Your task to perform on an android device: create a new album in the google photos Image 0: 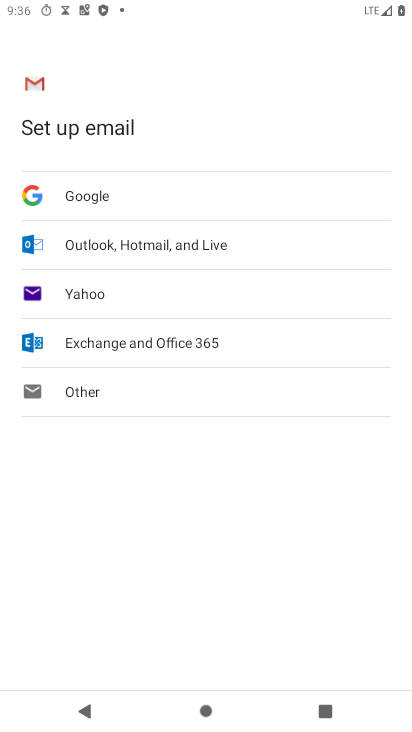
Step 0: press back button
Your task to perform on an android device: create a new album in the google photos Image 1: 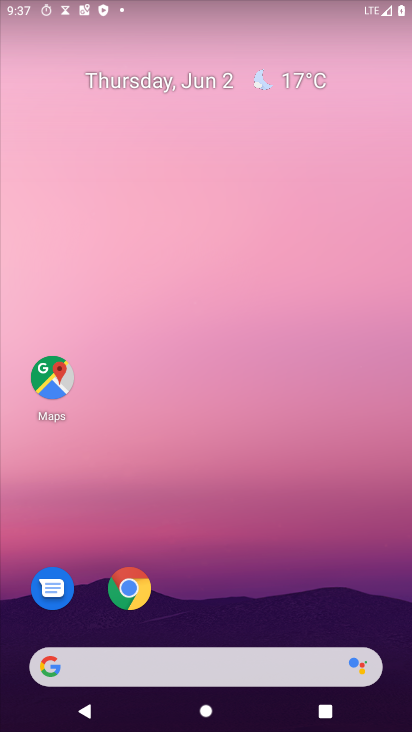
Step 1: drag from (237, 575) to (282, 123)
Your task to perform on an android device: create a new album in the google photos Image 2: 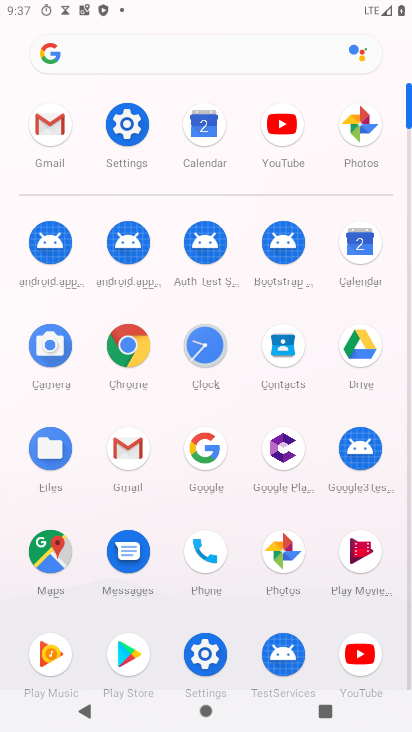
Step 2: click (279, 553)
Your task to perform on an android device: create a new album in the google photos Image 3: 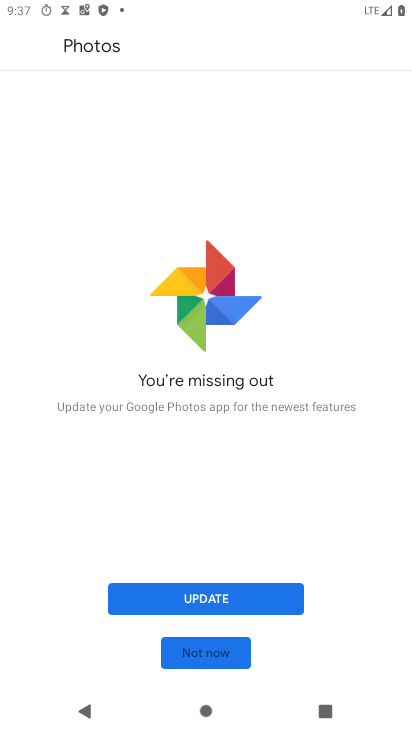
Step 3: click (213, 656)
Your task to perform on an android device: create a new album in the google photos Image 4: 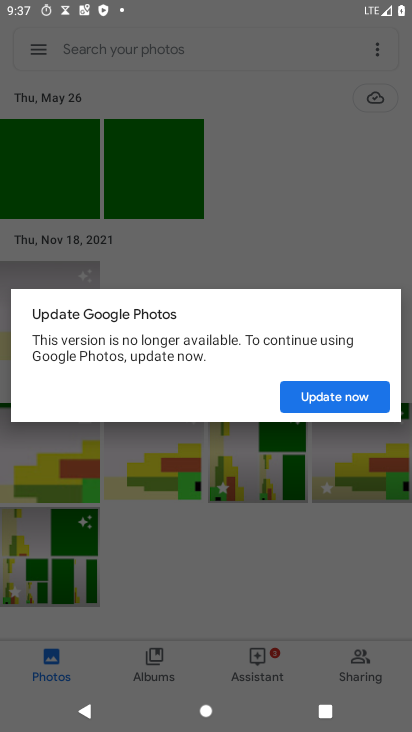
Step 4: click (313, 404)
Your task to perform on an android device: create a new album in the google photos Image 5: 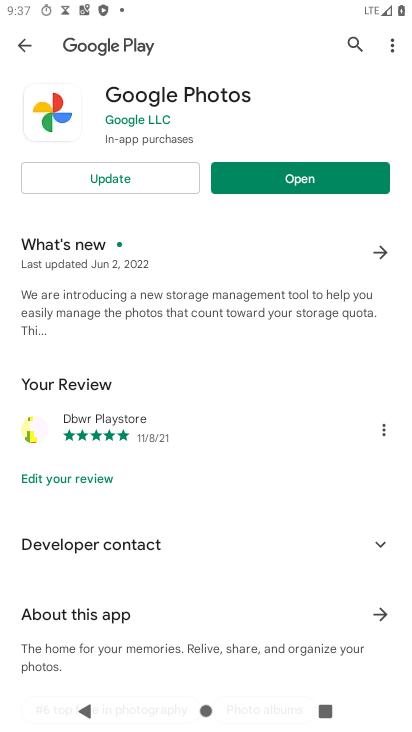
Step 5: click (331, 175)
Your task to perform on an android device: create a new album in the google photos Image 6: 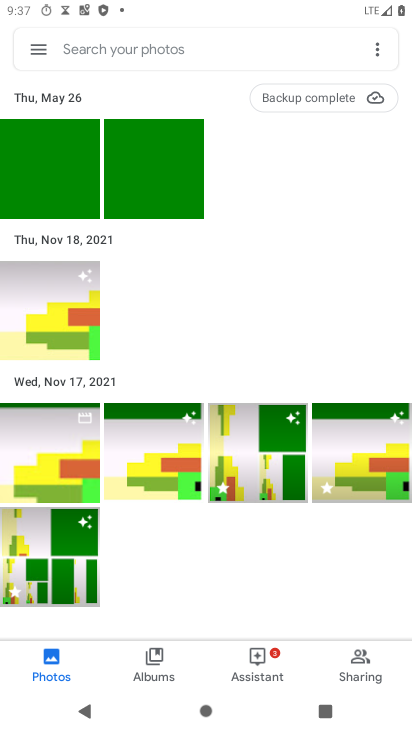
Step 6: click (374, 52)
Your task to perform on an android device: create a new album in the google photos Image 7: 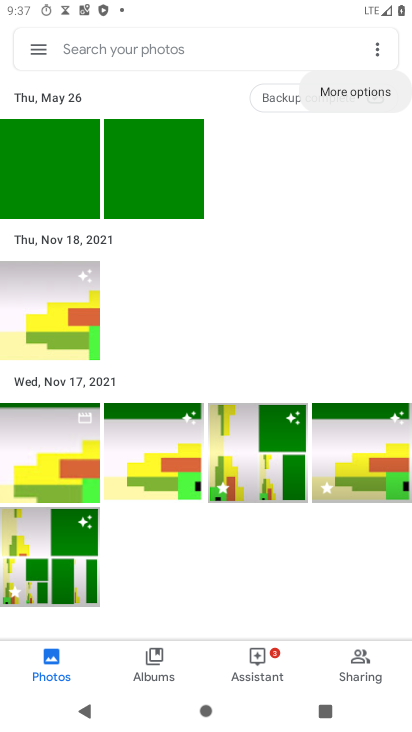
Step 7: click (374, 52)
Your task to perform on an android device: create a new album in the google photos Image 8: 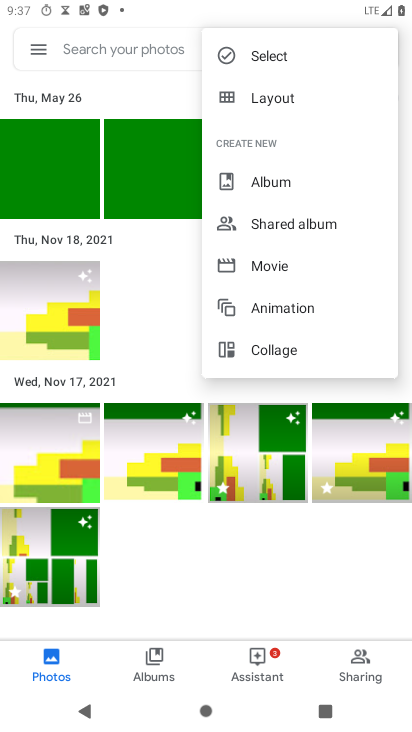
Step 8: click (279, 178)
Your task to perform on an android device: create a new album in the google photos Image 9: 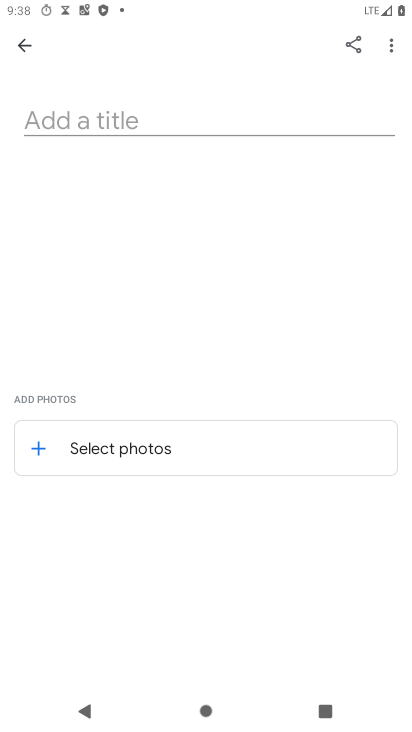
Step 9: click (72, 114)
Your task to perform on an android device: create a new album in the google photos Image 10: 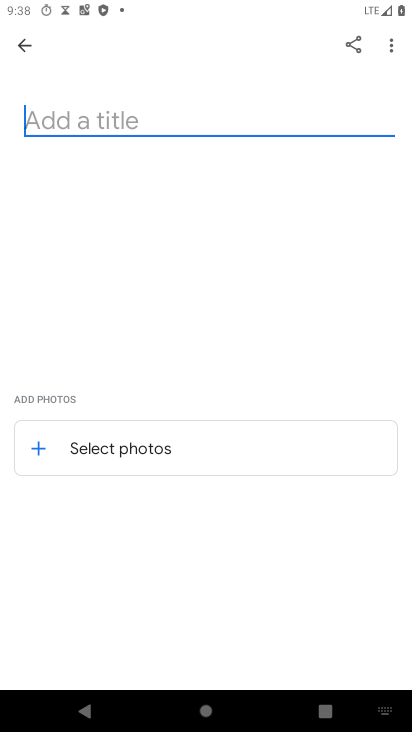
Step 10: type "hvhv"
Your task to perform on an android device: create a new album in the google photos Image 11: 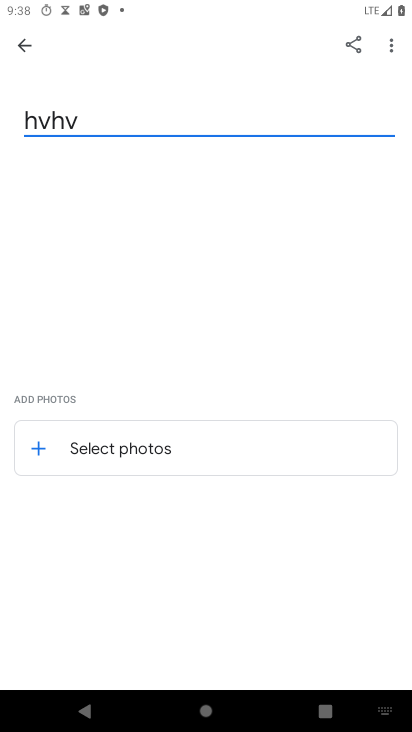
Step 11: click (166, 437)
Your task to perform on an android device: create a new album in the google photos Image 12: 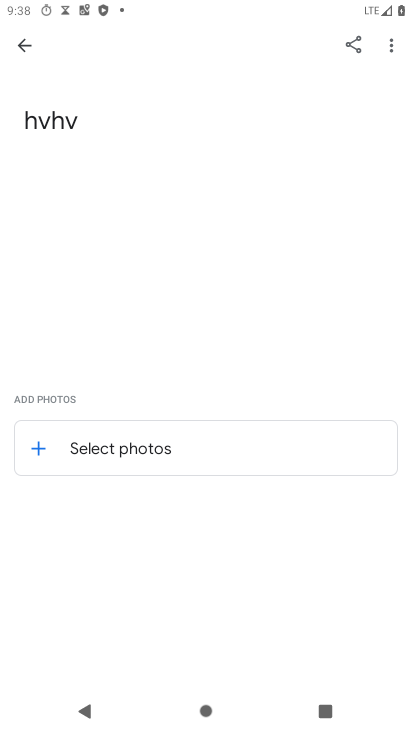
Step 12: click (160, 465)
Your task to perform on an android device: create a new album in the google photos Image 13: 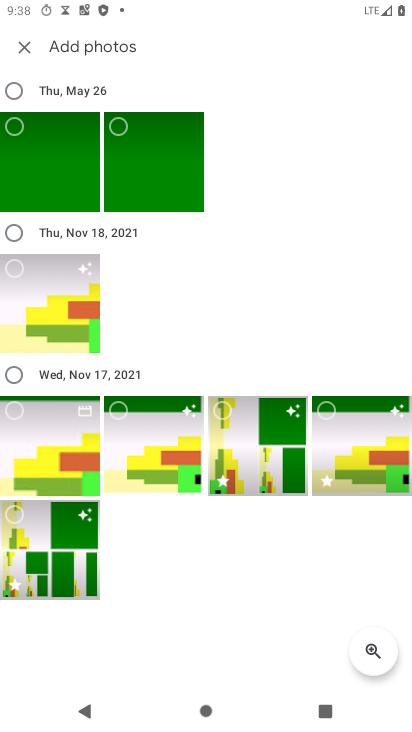
Step 13: click (10, 63)
Your task to perform on an android device: create a new album in the google photos Image 14: 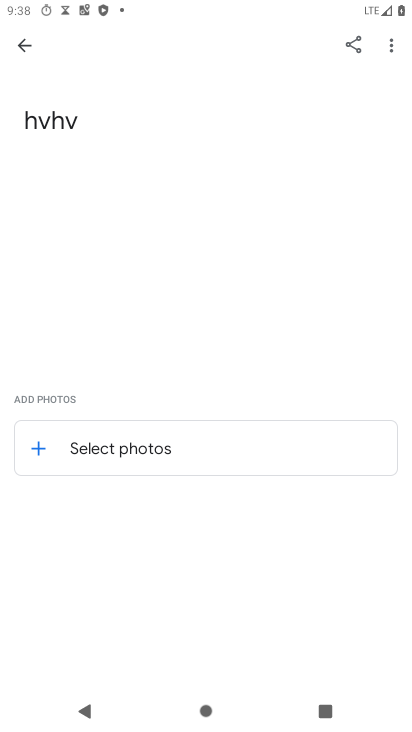
Step 14: click (87, 469)
Your task to perform on an android device: create a new album in the google photos Image 15: 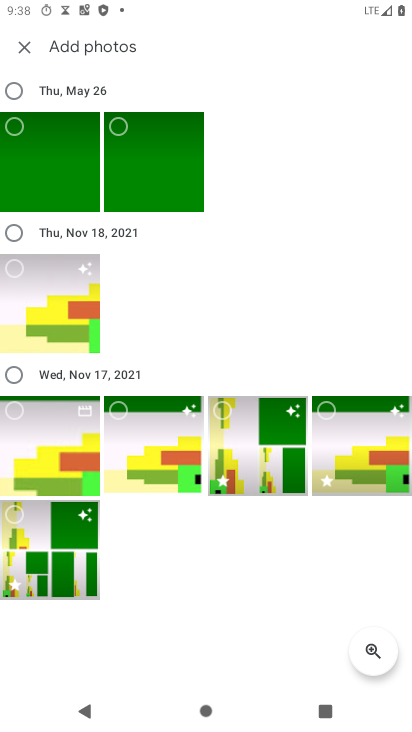
Step 15: click (5, 97)
Your task to perform on an android device: create a new album in the google photos Image 16: 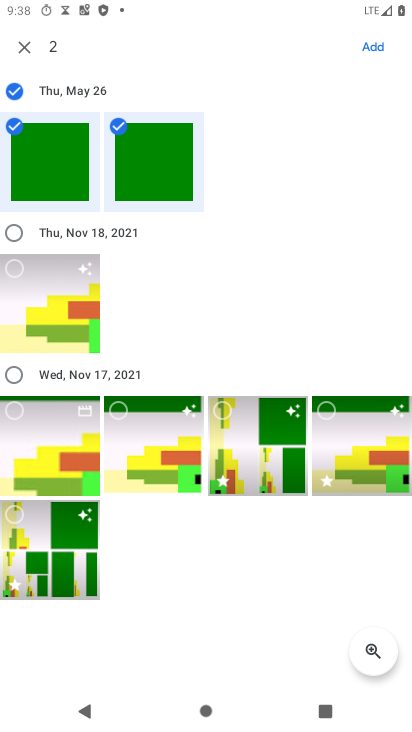
Step 16: click (24, 372)
Your task to perform on an android device: create a new album in the google photos Image 17: 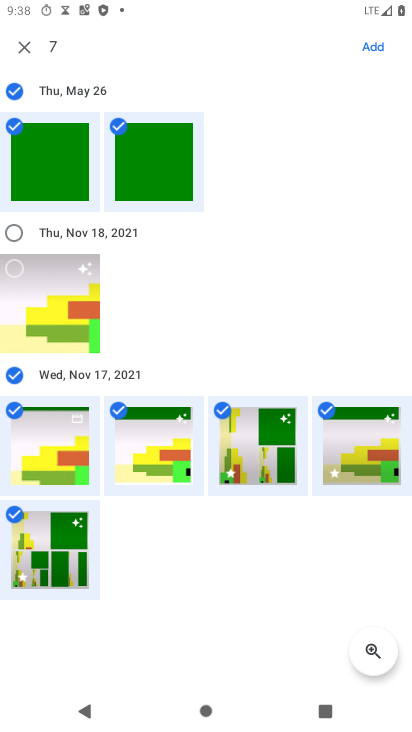
Step 17: click (9, 226)
Your task to perform on an android device: create a new album in the google photos Image 18: 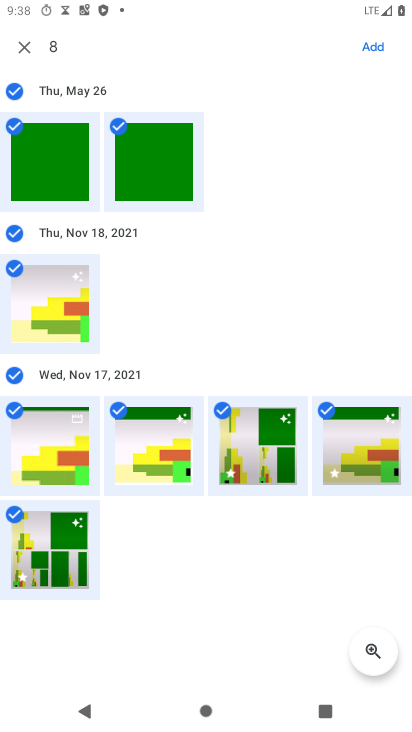
Step 18: click (372, 42)
Your task to perform on an android device: create a new album in the google photos Image 19: 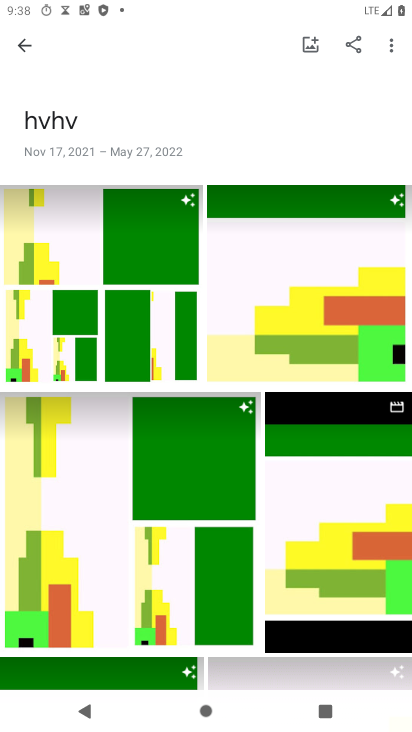
Step 19: task complete